Your task to perform on an android device: Show me the alarms in the clock app Image 0: 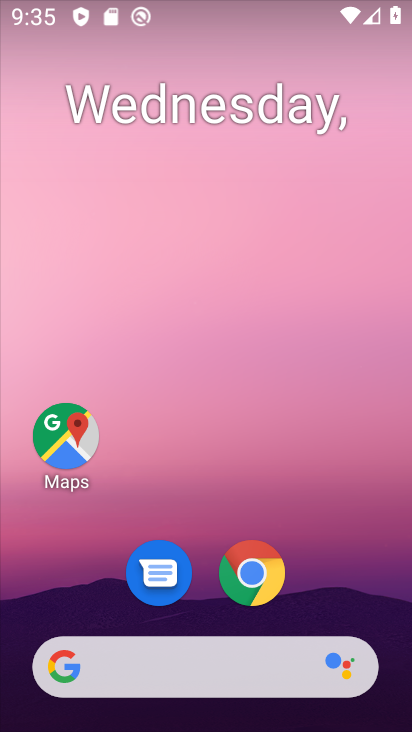
Step 0: drag from (350, 413) to (362, 335)
Your task to perform on an android device: Show me the alarms in the clock app Image 1: 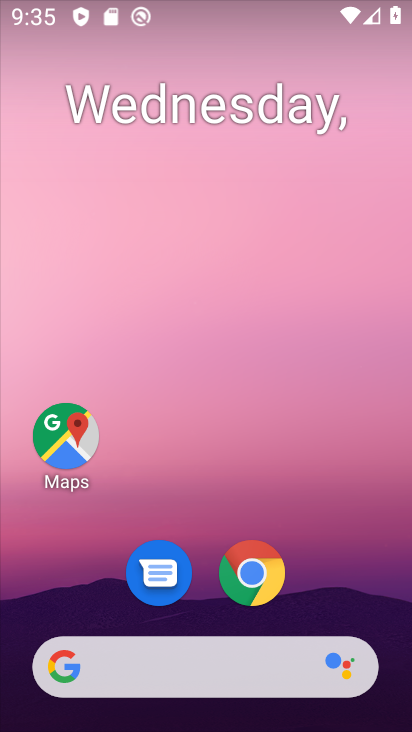
Step 1: drag from (317, 559) to (339, 277)
Your task to perform on an android device: Show me the alarms in the clock app Image 2: 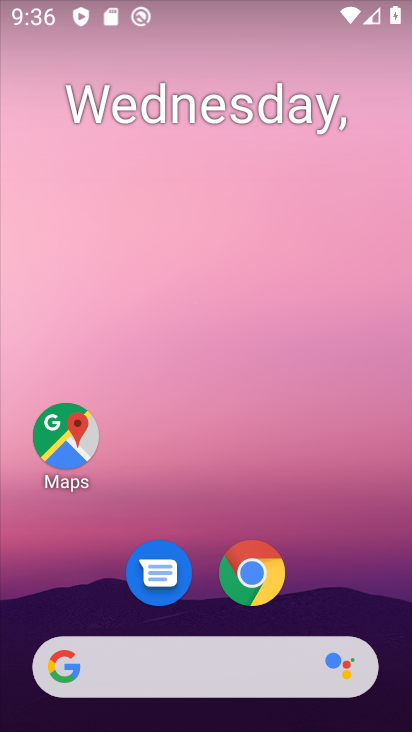
Step 2: drag from (309, 567) to (295, 200)
Your task to perform on an android device: Show me the alarms in the clock app Image 3: 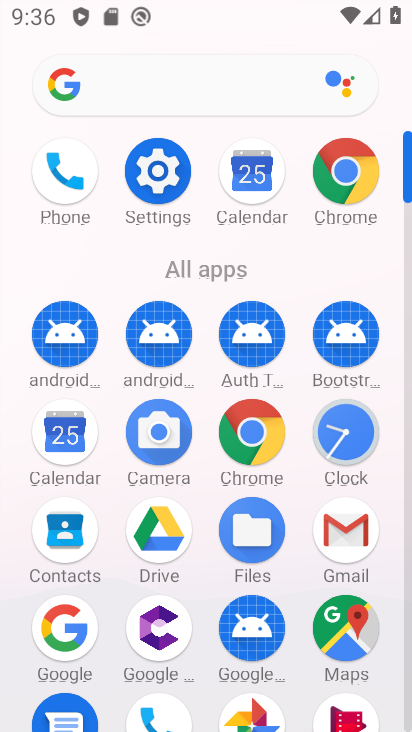
Step 3: click (351, 412)
Your task to perform on an android device: Show me the alarms in the clock app Image 4: 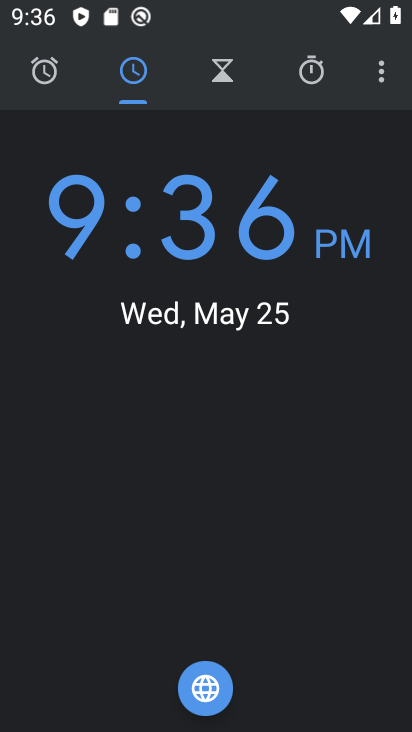
Step 4: click (48, 68)
Your task to perform on an android device: Show me the alarms in the clock app Image 5: 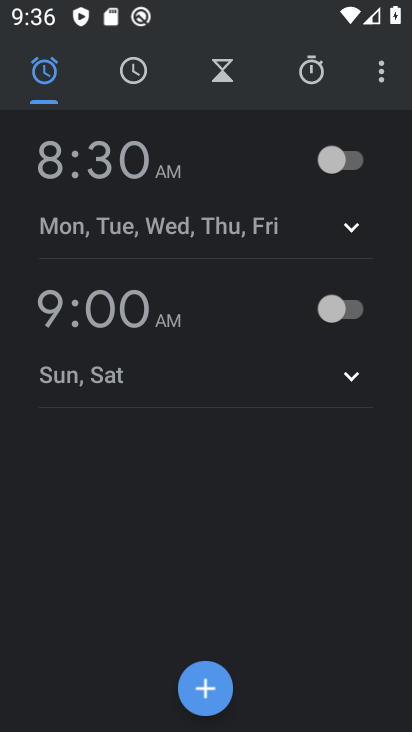
Step 5: task complete